Your task to perform on an android device: Open CNN.com Image 0: 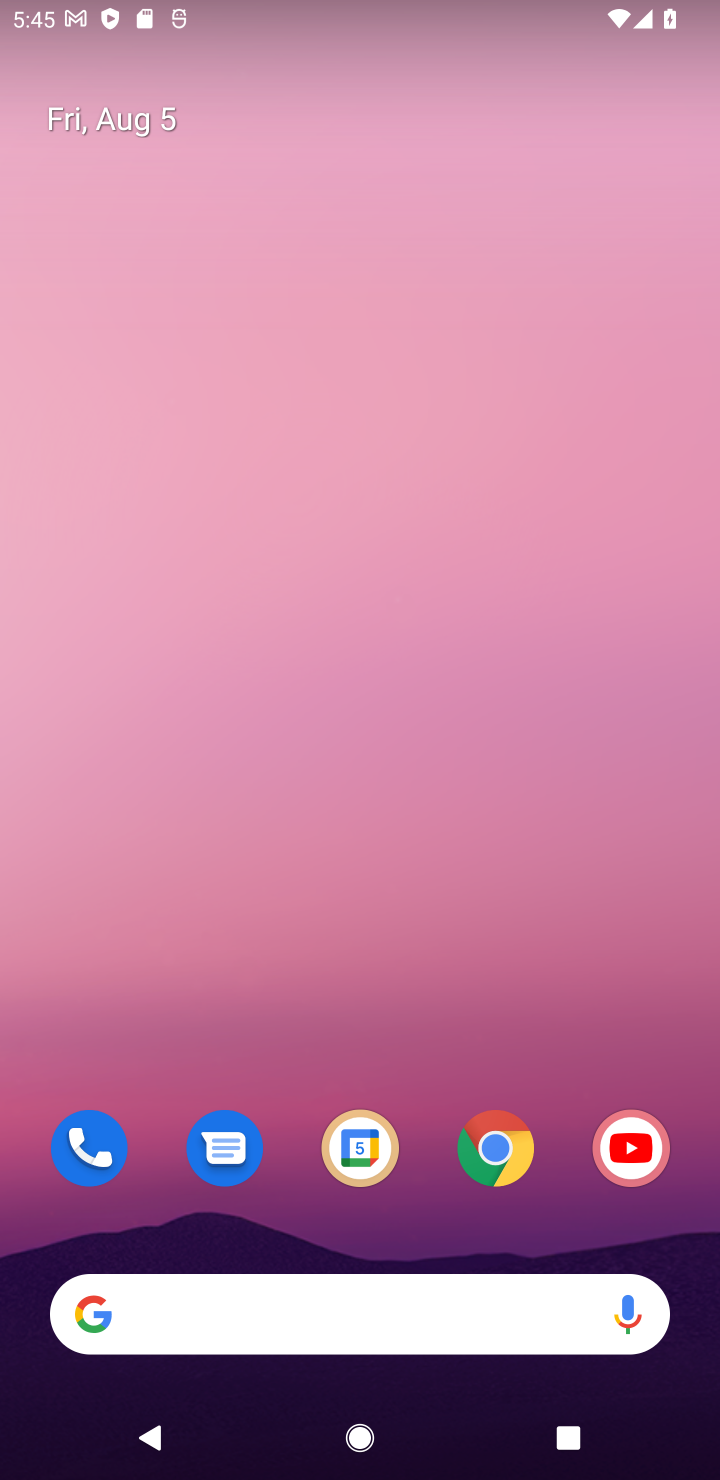
Step 0: click (479, 1161)
Your task to perform on an android device: Open CNN.com Image 1: 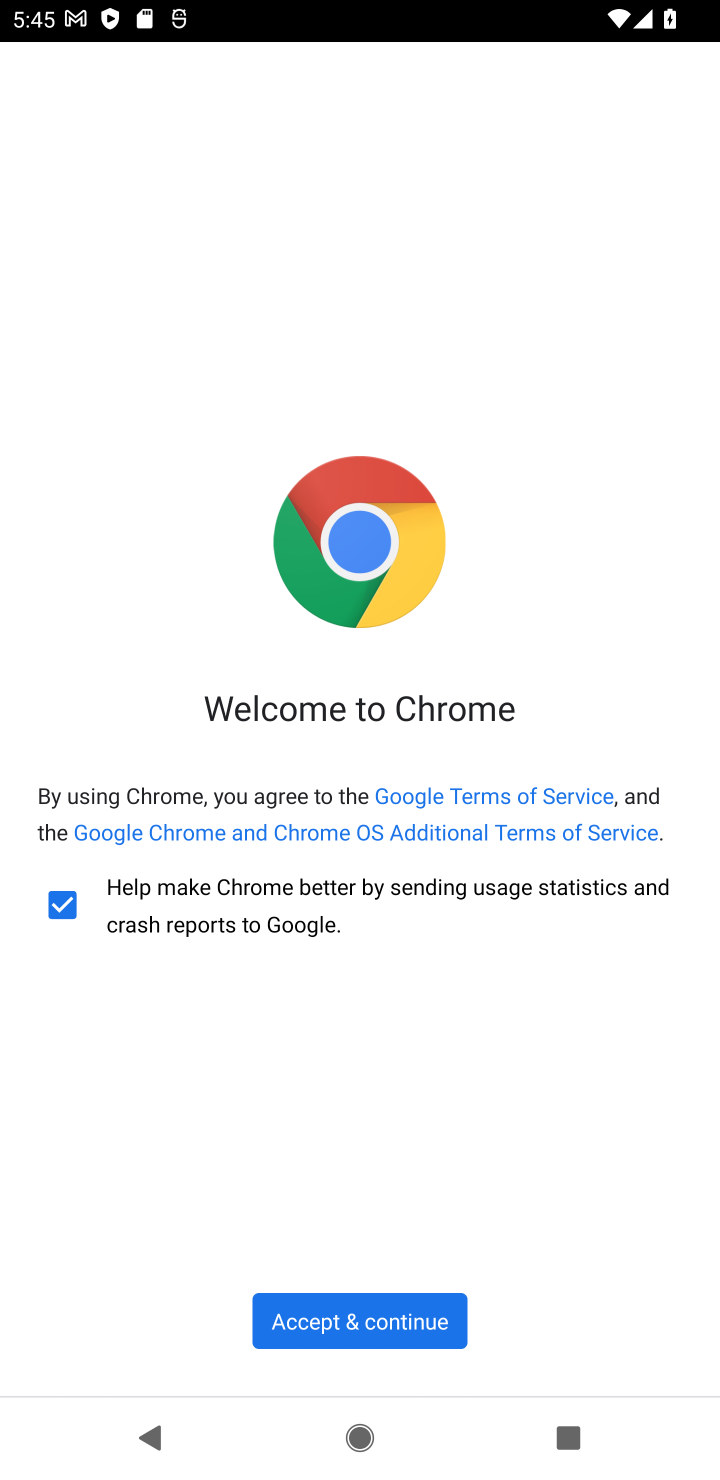
Step 1: click (320, 1311)
Your task to perform on an android device: Open CNN.com Image 2: 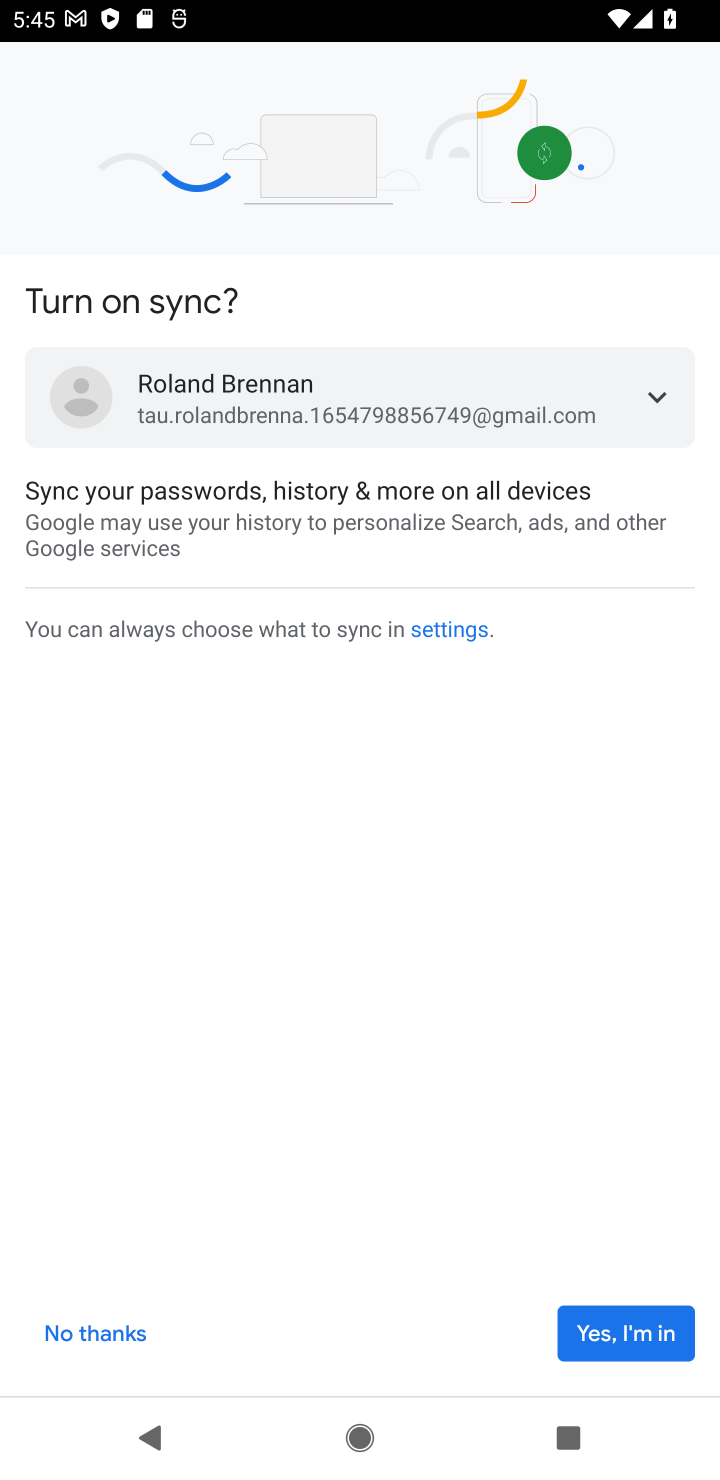
Step 2: click (620, 1330)
Your task to perform on an android device: Open CNN.com Image 3: 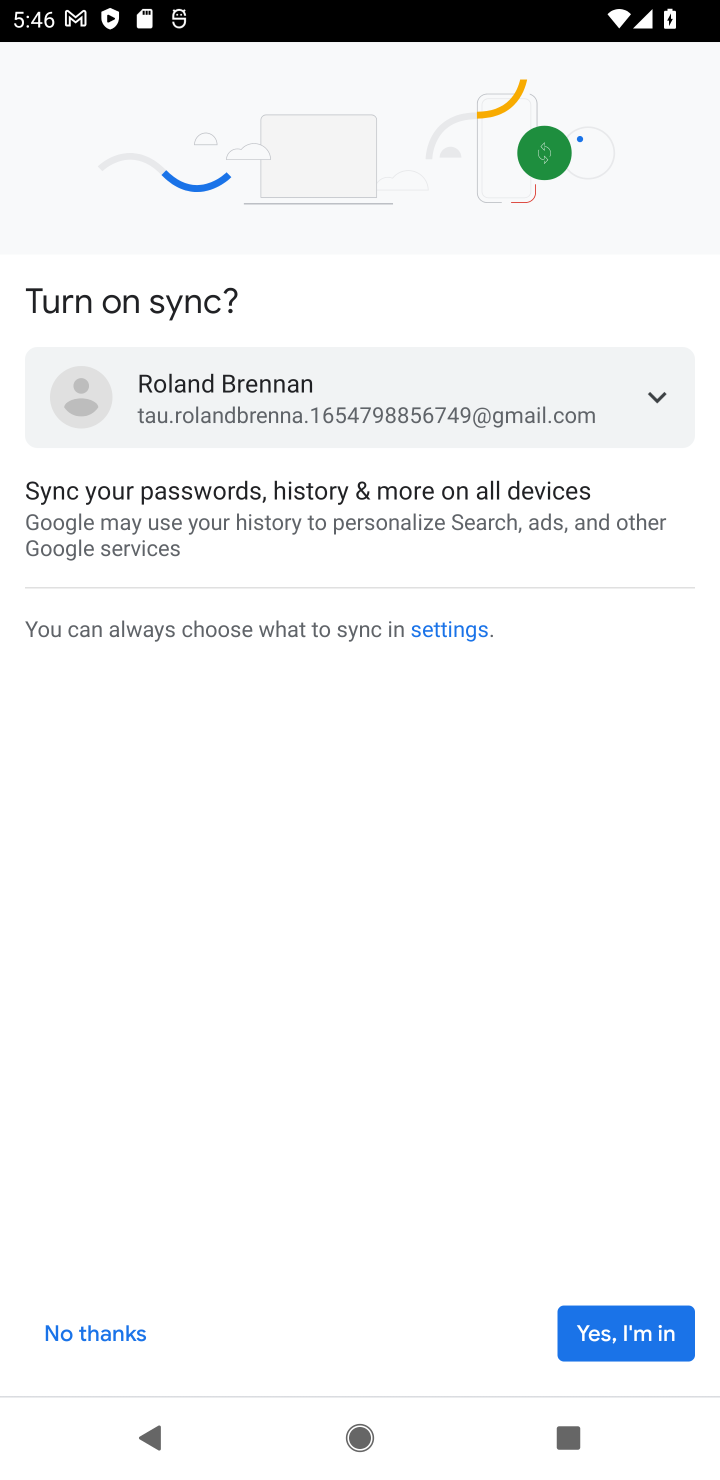
Step 3: click (645, 1330)
Your task to perform on an android device: Open CNN.com Image 4: 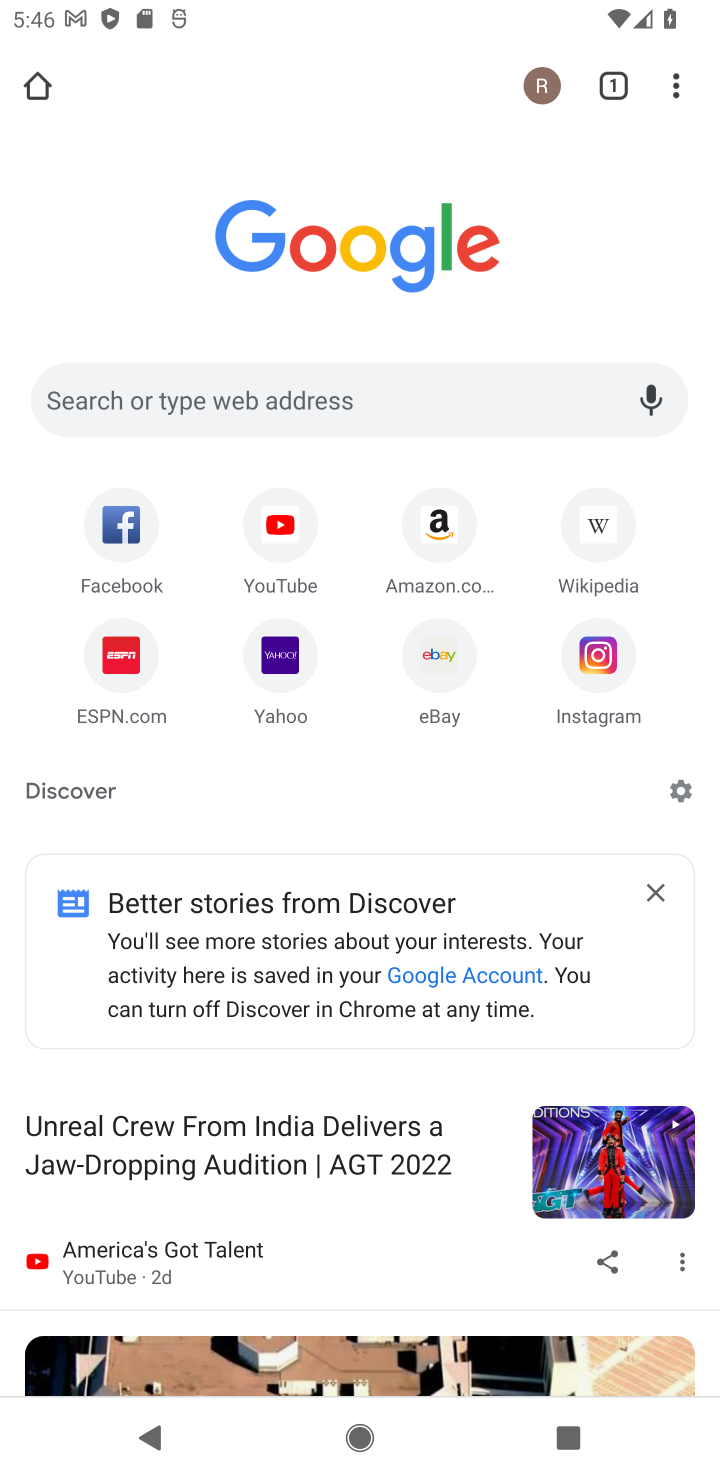
Step 4: click (275, 397)
Your task to perform on an android device: Open CNN.com Image 5: 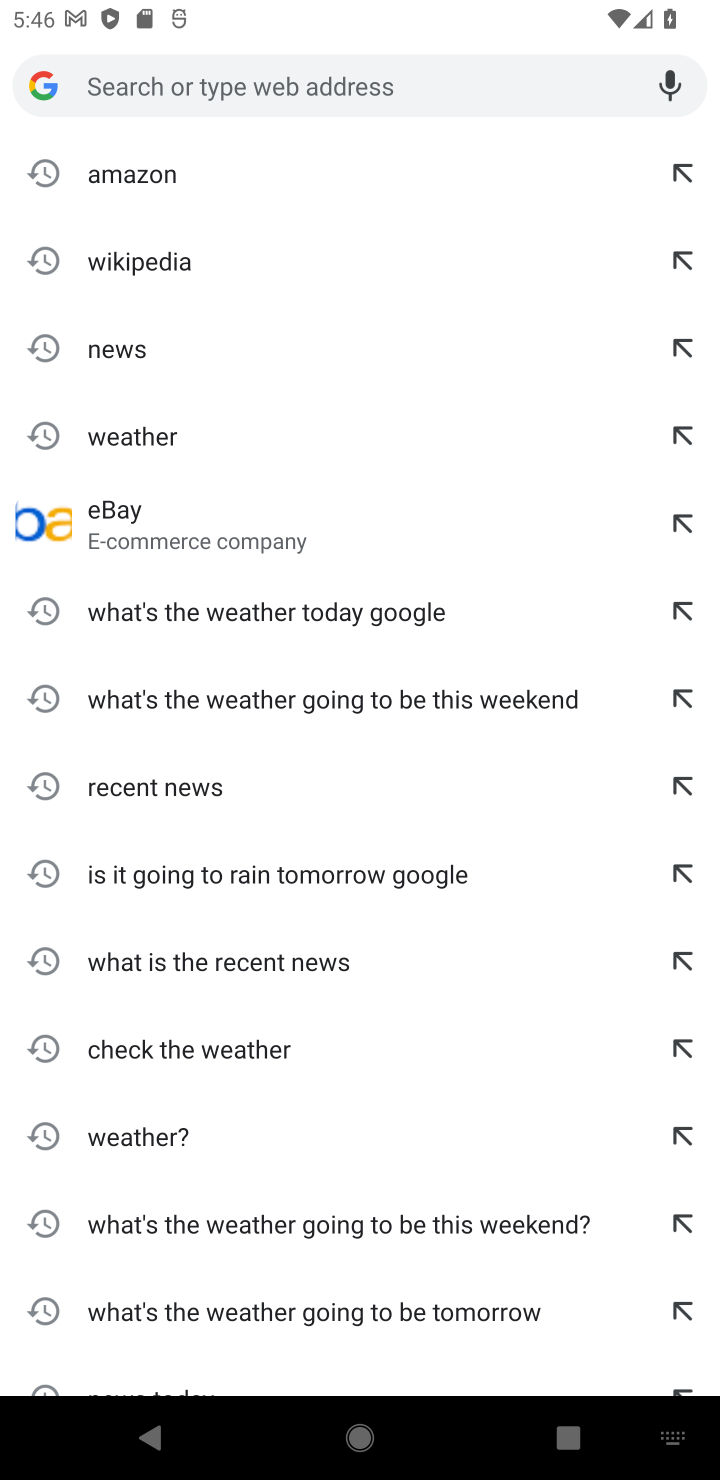
Step 5: type "cnn.com"
Your task to perform on an android device: Open CNN.com Image 6: 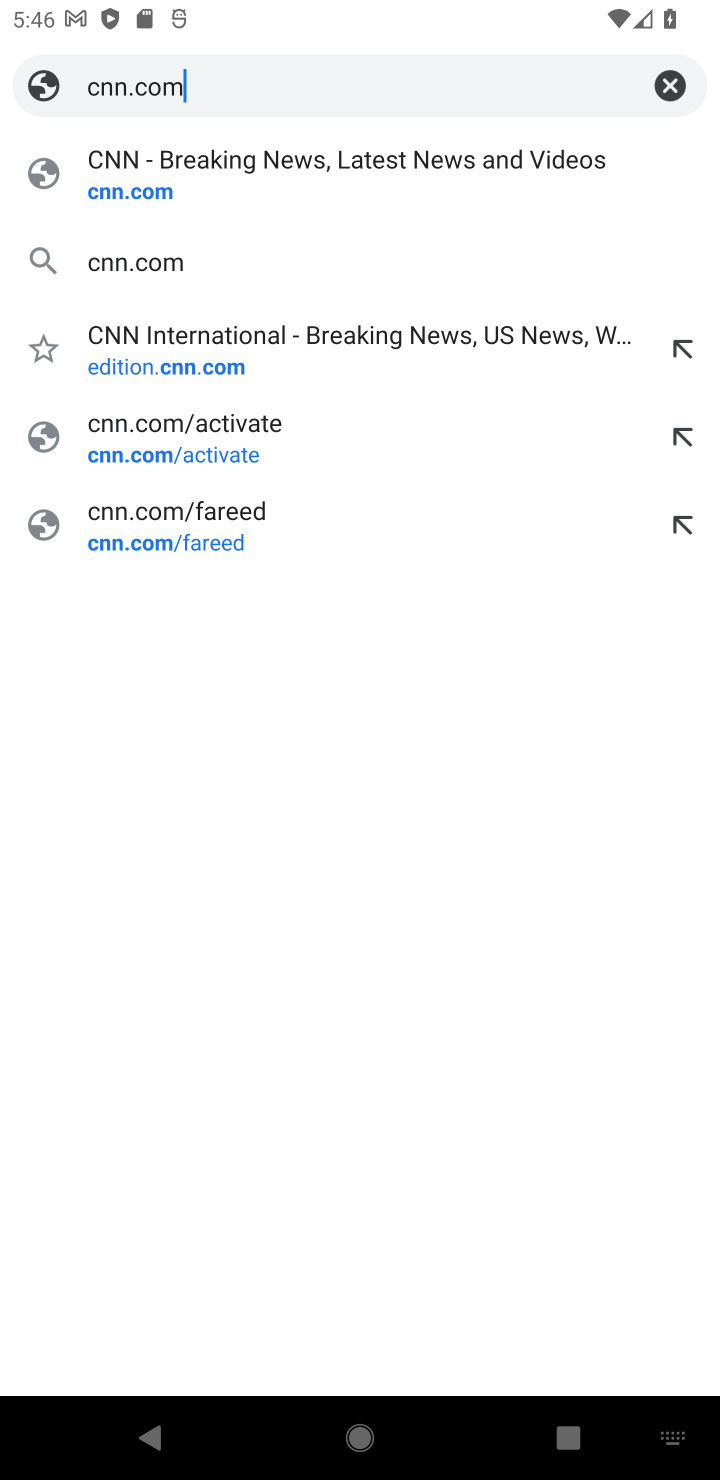
Step 6: click (145, 151)
Your task to perform on an android device: Open CNN.com Image 7: 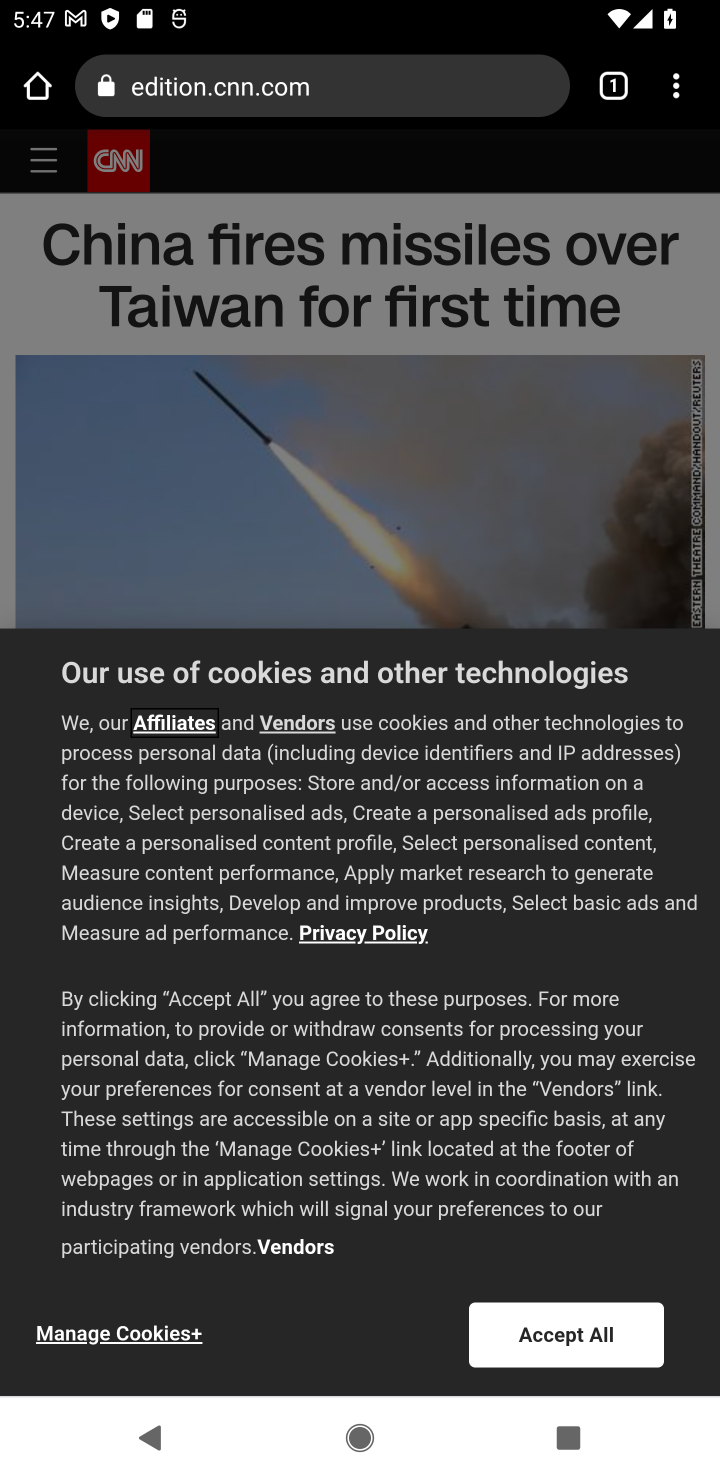
Step 7: task complete